Your task to perform on an android device: Open Chrome and go to the settings page Image 0: 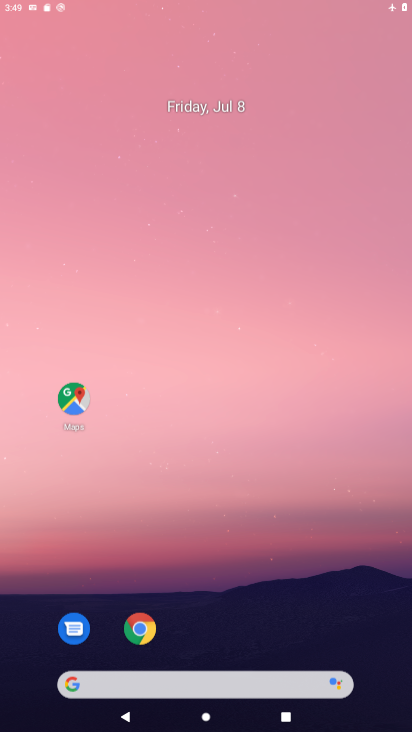
Step 0: click (189, 326)
Your task to perform on an android device: Open Chrome and go to the settings page Image 1: 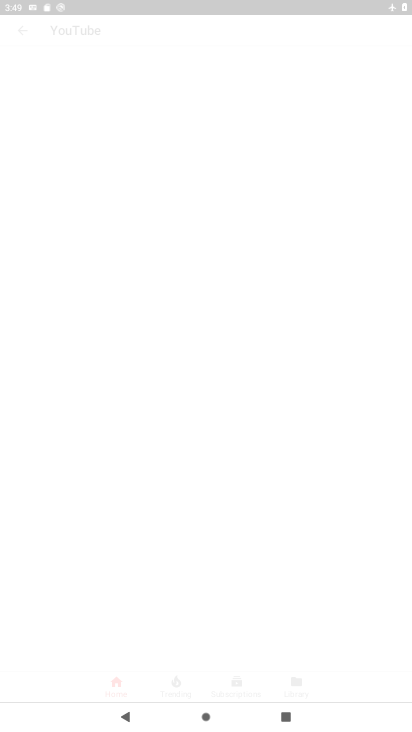
Step 1: drag from (213, 668) to (213, 229)
Your task to perform on an android device: Open Chrome and go to the settings page Image 2: 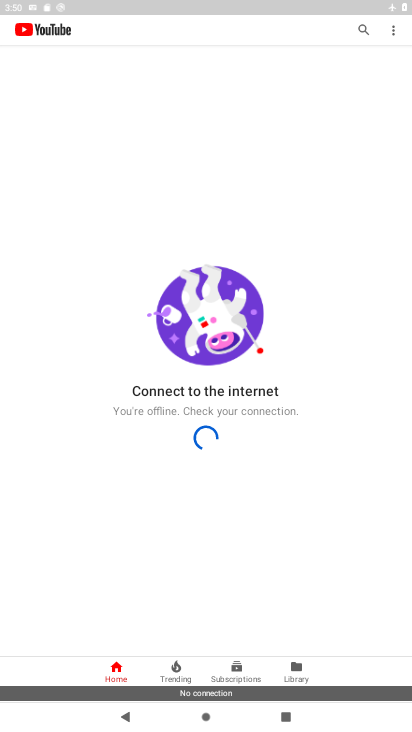
Step 2: press home button
Your task to perform on an android device: Open Chrome and go to the settings page Image 3: 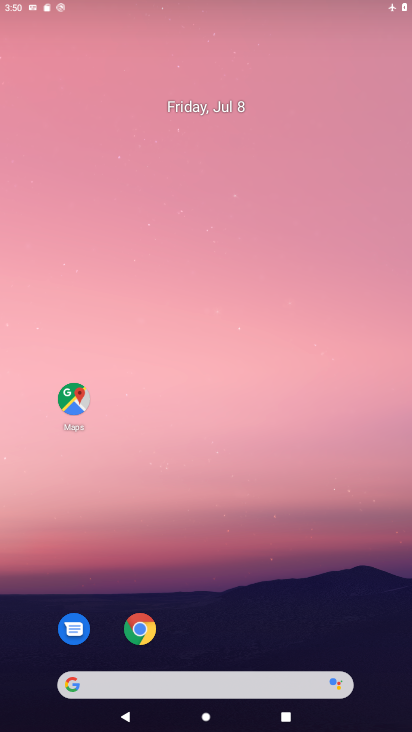
Step 3: drag from (279, 623) to (250, 258)
Your task to perform on an android device: Open Chrome and go to the settings page Image 4: 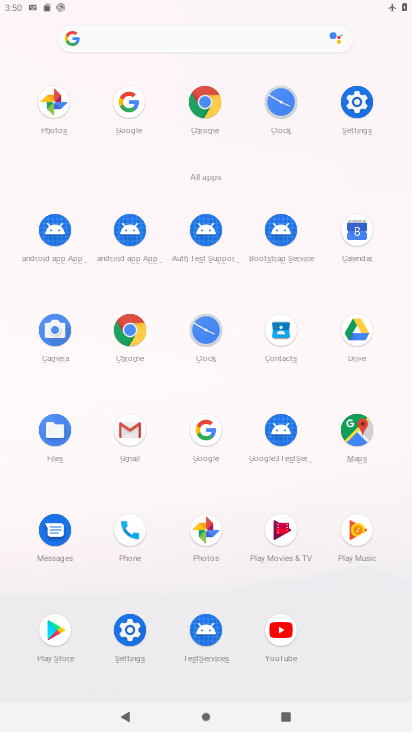
Step 4: click (205, 99)
Your task to perform on an android device: Open Chrome and go to the settings page Image 5: 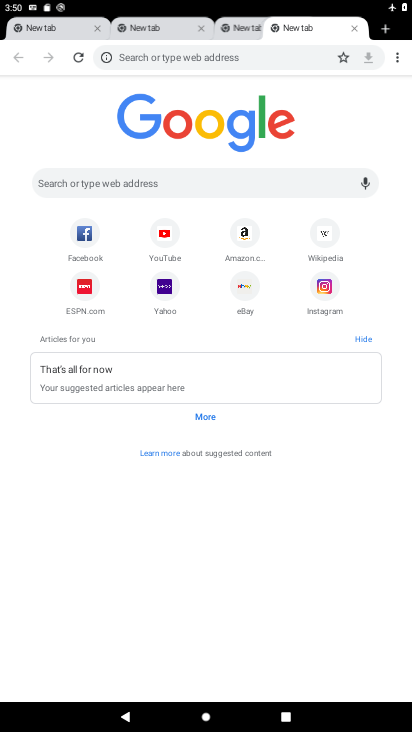
Step 5: click (398, 53)
Your task to perform on an android device: Open Chrome and go to the settings page Image 6: 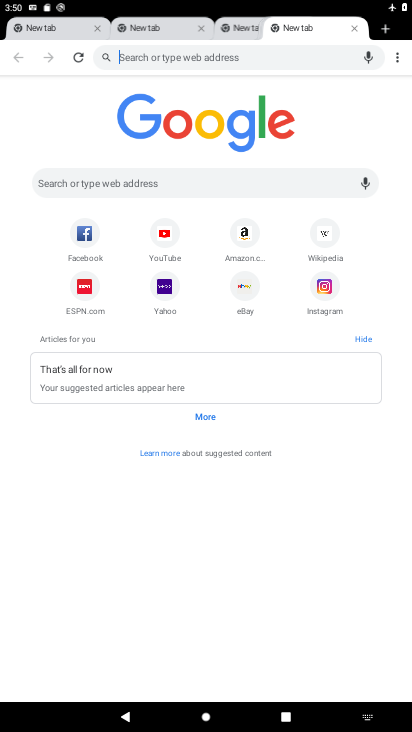
Step 6: click (392, 60)
Your task to perform on an android device: Open Chrome and go to the settings page Image 7: 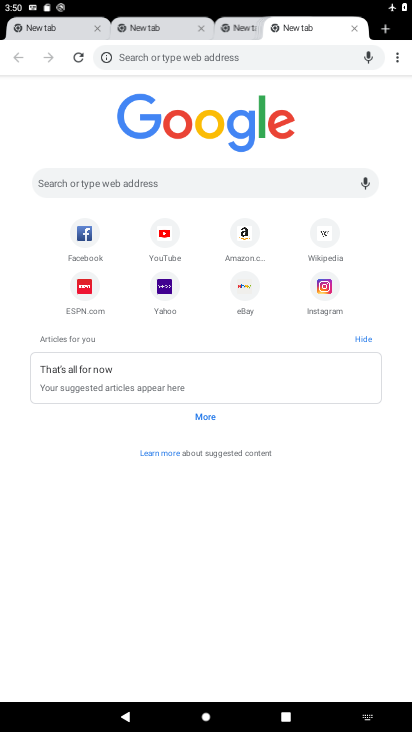
Step 7: click (399, 61)
Your task to perform on an android device: Open Chrome and go to the settings page Image 8: 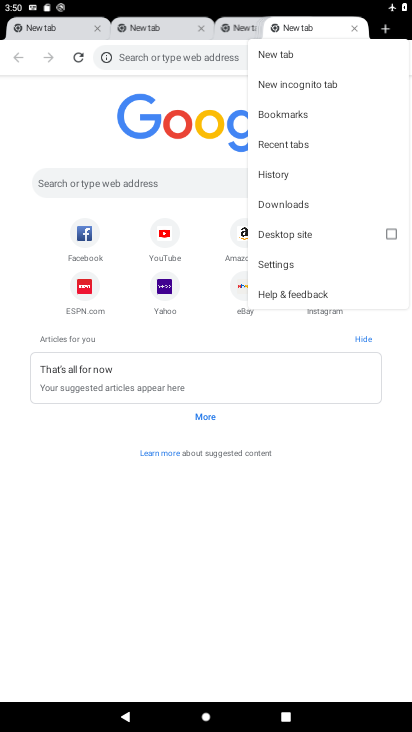
Step 8: click (307, 264)
Your task to perform on an android device: Open Chrome and go to the settings page Image 9: 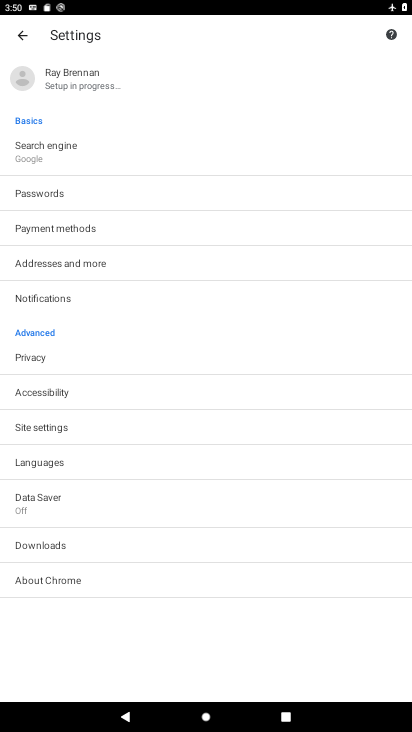
Step 9: task complete